Your task to perform on an android device: Open display settings Image 0: 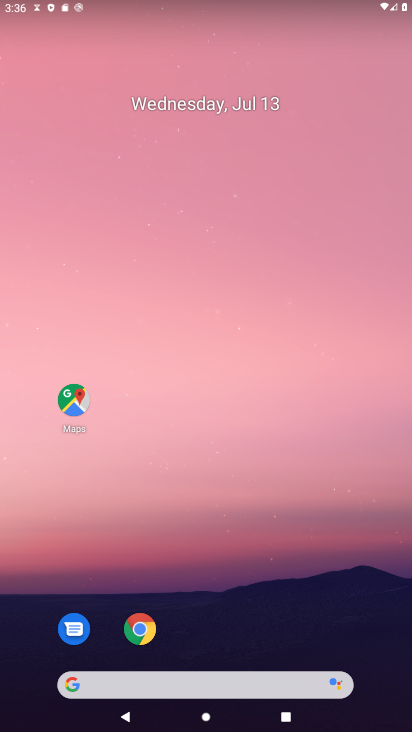
Step 0: drag from (282, 323) to (280, 30)
Your task to perform on an android device: Open display settings Image 1: 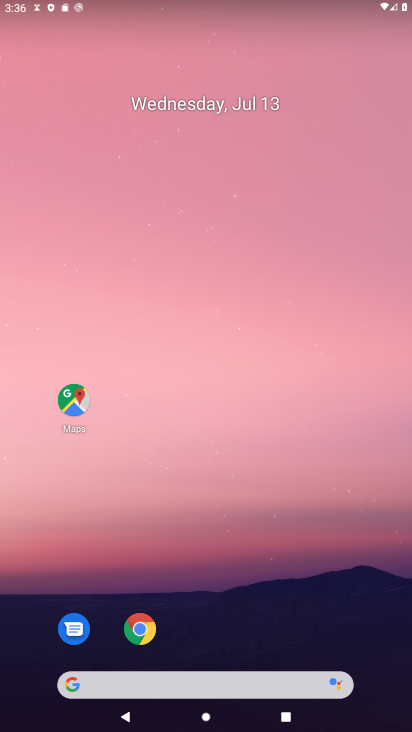
Step 1: drag from (250, 525) to (238, 2)
Your task to perform on an android device: Open display settings Image 2: 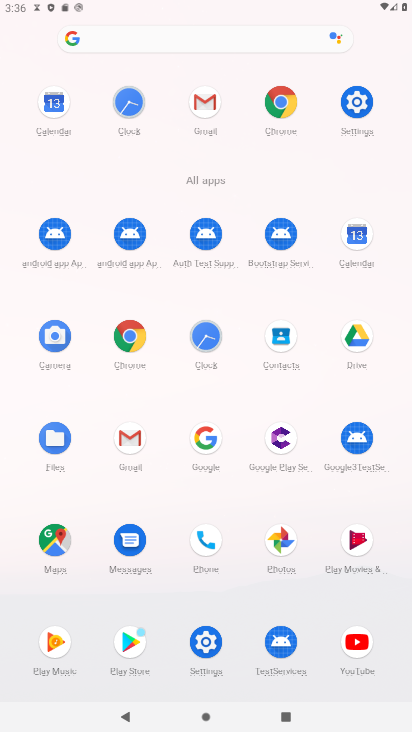
Step 2: click (360, 100)
Your task to perform on an android device: Open display settings Image 3: 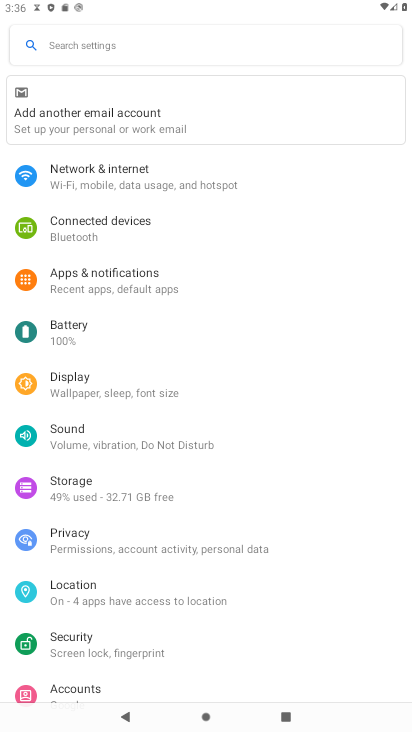
Step 3: click (78, 387)
Your task to perform on an android device: Open display settings Image 4: 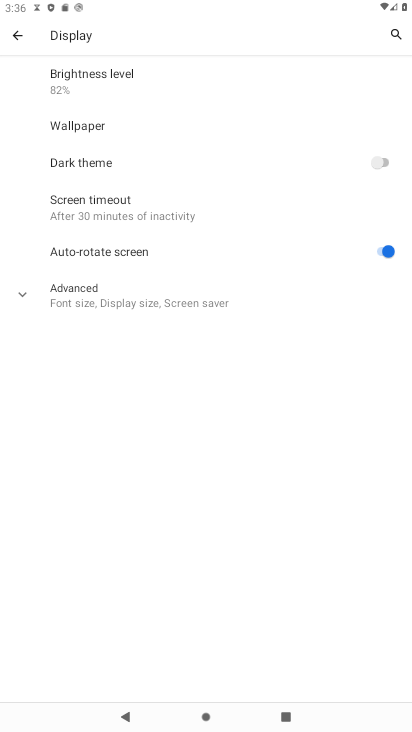
Step 4: task complete